Your task to perform on an android device: What's the weather today? Image 0: 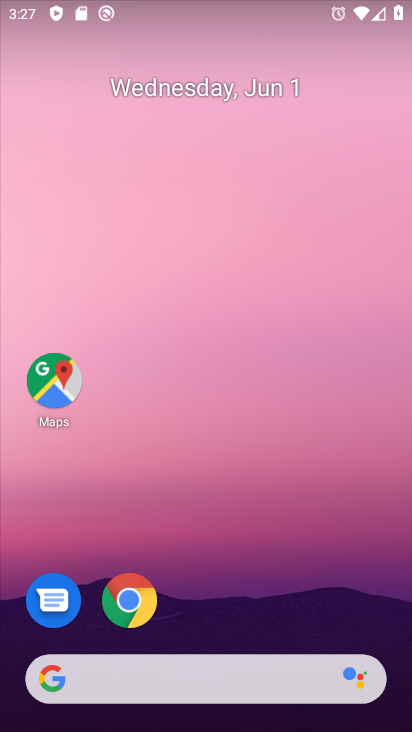
Step 0: drag from (179, 620) to (193, 184)
Your task to perform on an android device: What's the weather today? Image 1: 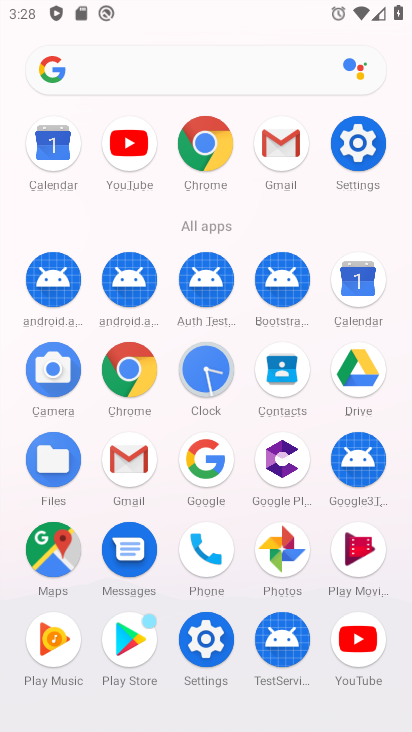
Step 1: click (208, 460)
Your task to perform on an android device: What's the weather today? Image 2: 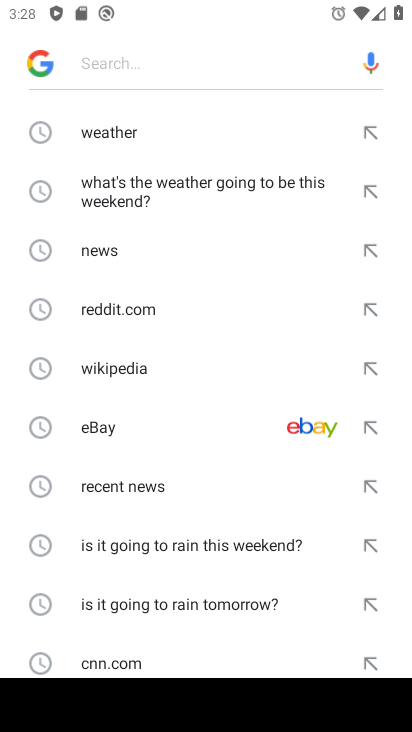
Step 2: click (125, 175)
Your task to perform on an android device: What's the weather today? Image 3: 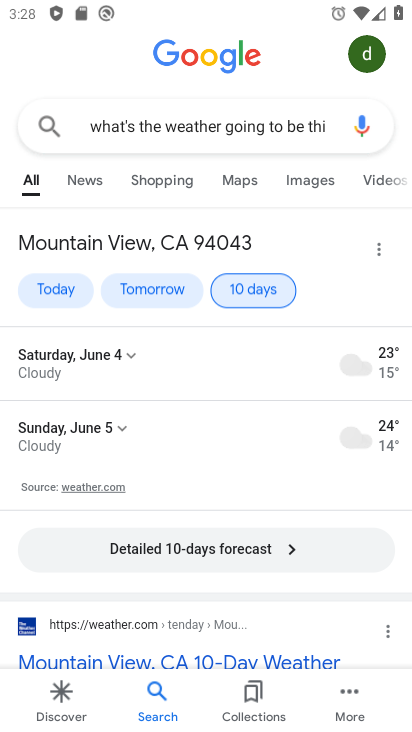
Step 3: click (30, 299)
Your task to perform on an android device: What's the weather today? Image 4: 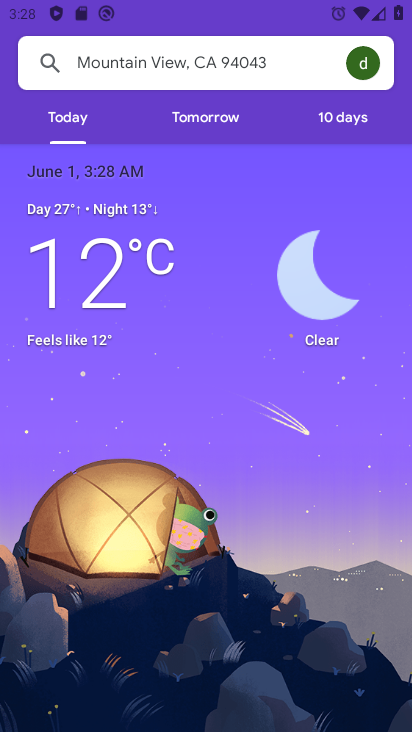
Step 4: task complete